Your task to perform on an android device: check google app version Image 0: 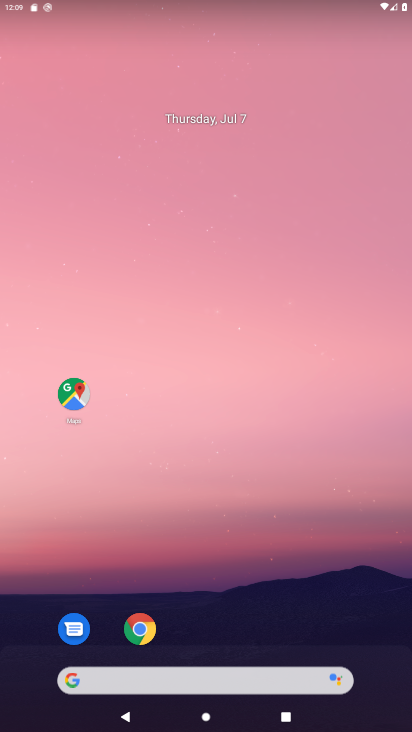
Step 0: press home button
Your task to perform on an android device: check google app version Image 1: 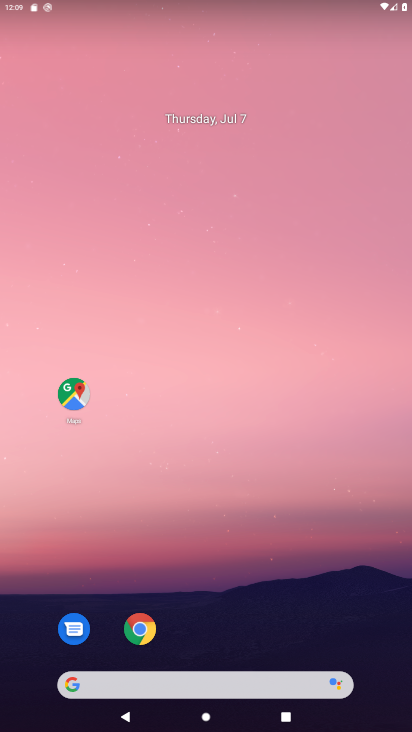
Step 1: drag from (229, 630) to (278, 75)
Your task to perform on an android device: check google app version Image 2: 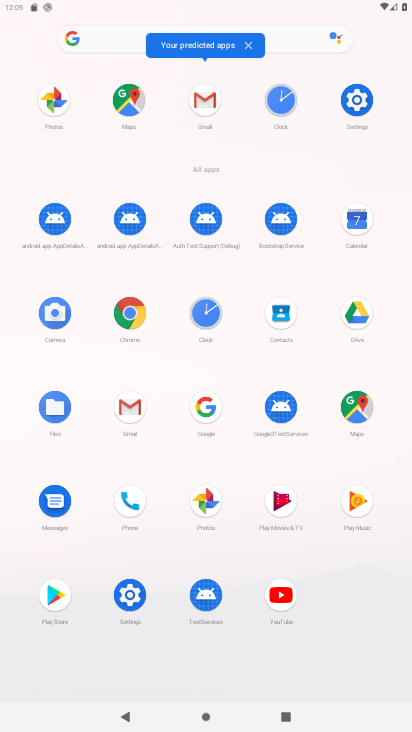
Step 2: click (137, 312)
Your task to perform on an android device: check google app version Image 3: 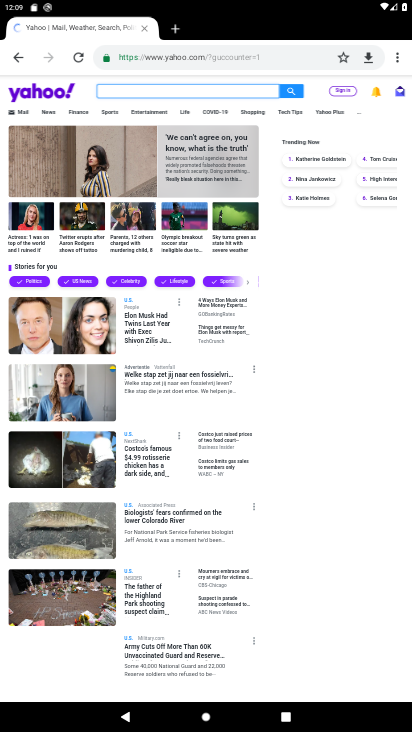
Step 3: click (400, 57)
Your task to perform on an android device: check google app version Image 4: 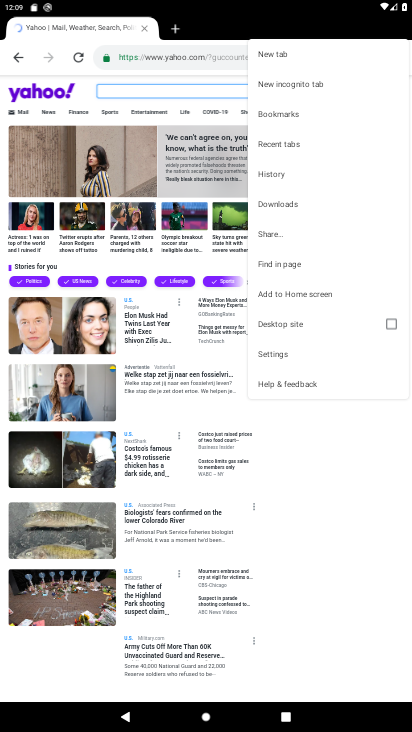
Step 4: click (323, 393)
Your task to perform on an android device: check google app version Image 5: 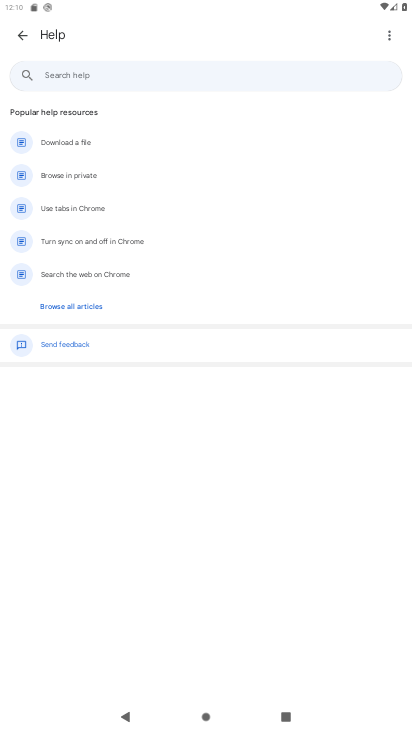
Step 5: click (393, 29)
Your task to perform on an android device: check google app version Image 6: 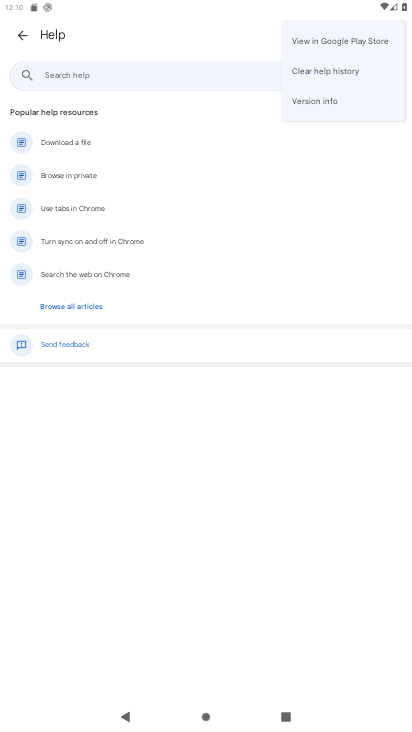
Step 6: click (364, 104)
Your task to perform on an android device: check google app version Image 7: 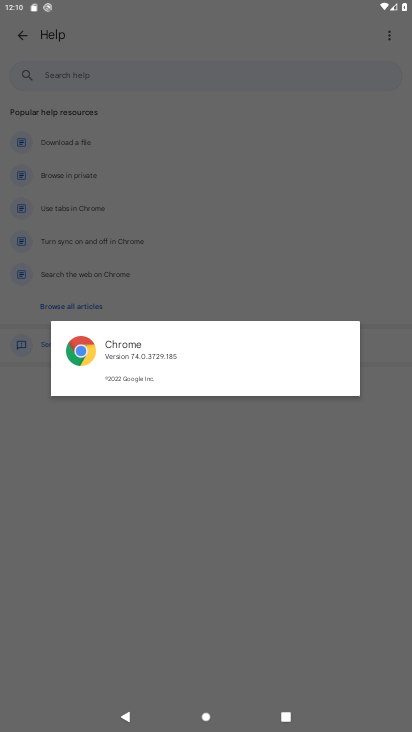
Step 7: task complete